Your task to perform on an android device: turn off data saver in the chrome app Image 0: 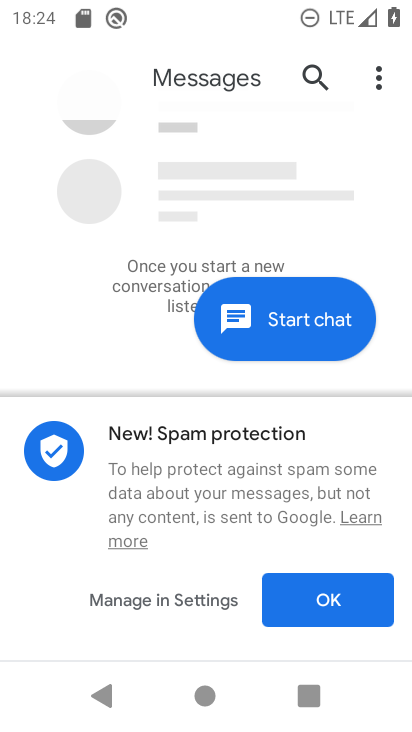
Step 0: press home button
Your task to perform on an android device: turn off data saver in the chrome app Image 1: 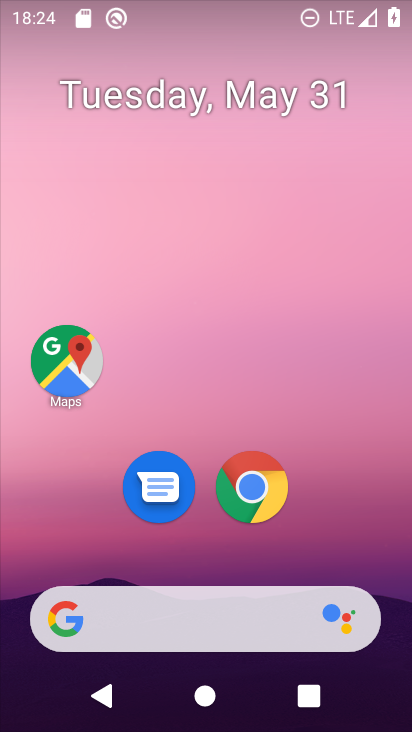
Step 1: click (258, 498)
Your task to perform on an android device: turn off data saver in the chrome app Image 2: 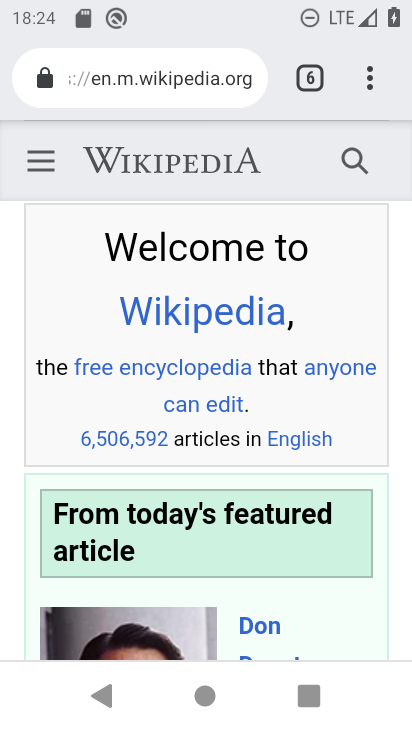
Step 2: click (368, 78)
Your task to perform on an android device: turn off data saver in the chrome app Image 3: 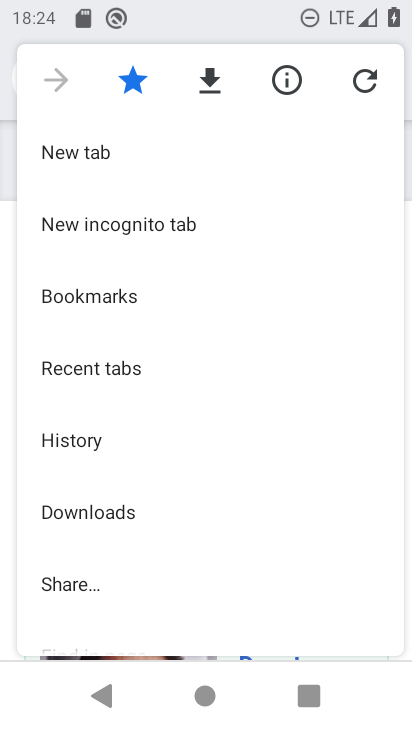
Step 3: drag from (190, 473) to (162, 230)
Your task to perform on an android device: turn off data saver in the chrome app Image 4: 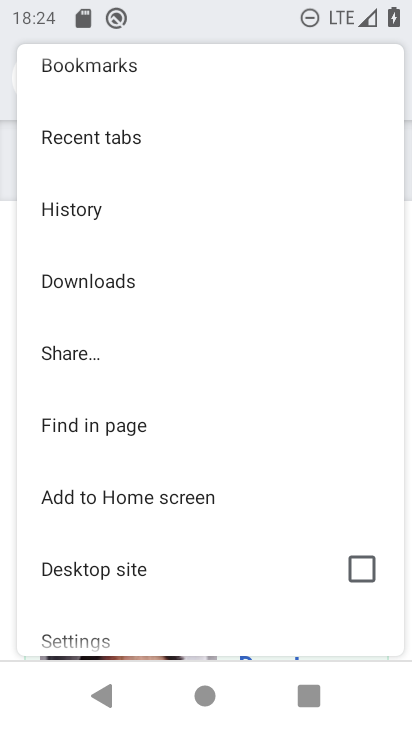
Step 4: drag from (251, 513) to (207, 245)
Your task to perform on an android device: turn off data saver in the chrome app Image 5: 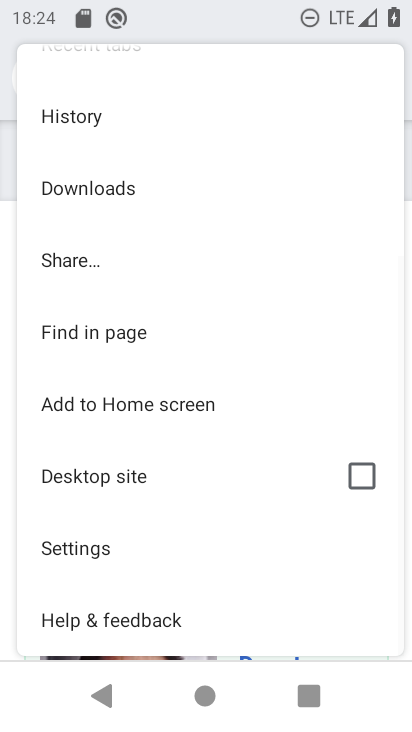
Step 5: click (74, 549)
Your task to perform on an android device: turn off data saver in the chrome app Image 6: 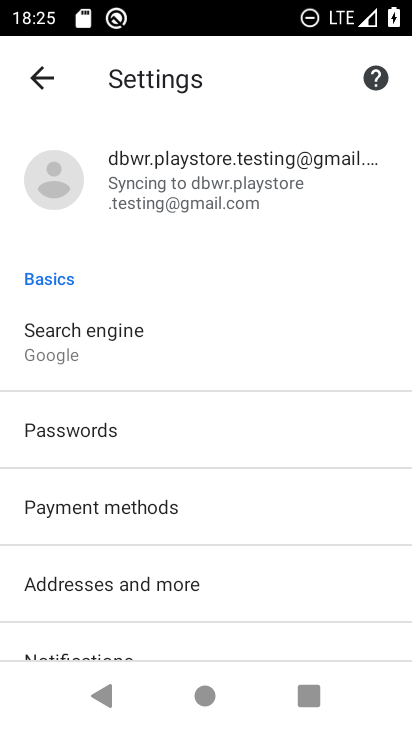
Step 6: drag from (214, 518) to (173, 178)
Your task to perform on an android device: turn off data saver in the chrome app Image 7: 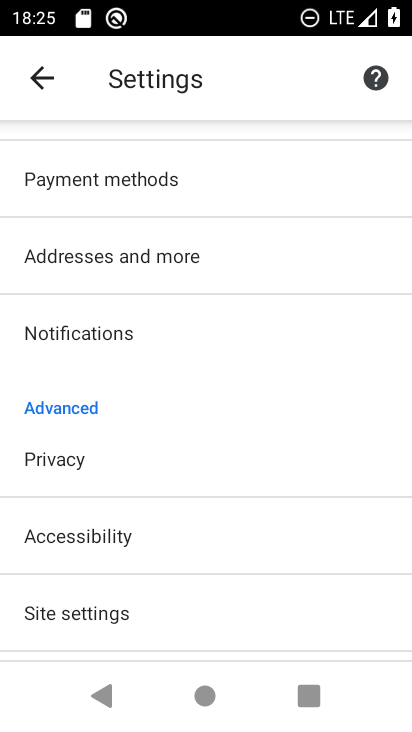
Step 7: click (72, 607)
Your task to perform on an android device: turn off data saver in the chrome app Image 8: 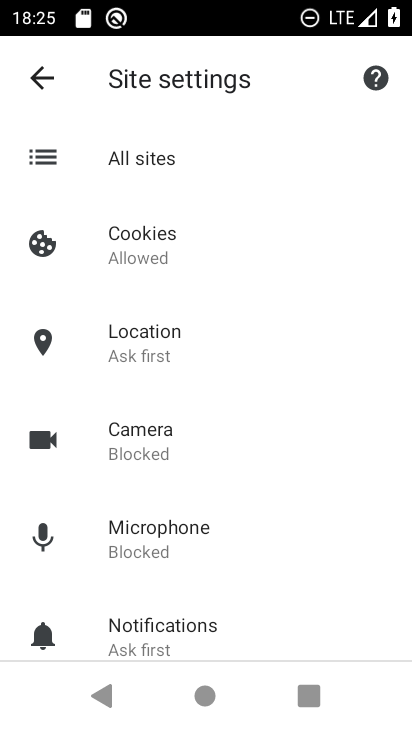
Step 8: drag from (223, 552) to (206, 133)
Your task to perform on an android device: turn off data saver in the chrome app Image 9: 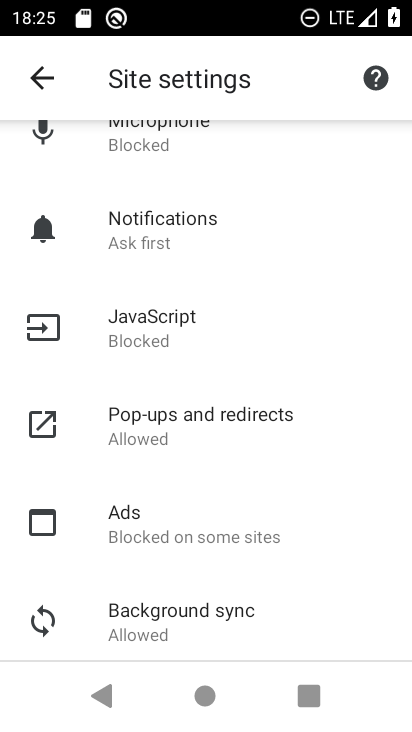
Step 9: click (120, 320)
Your task to perform on an android device: turn off data saver in the chrome app Image 10: 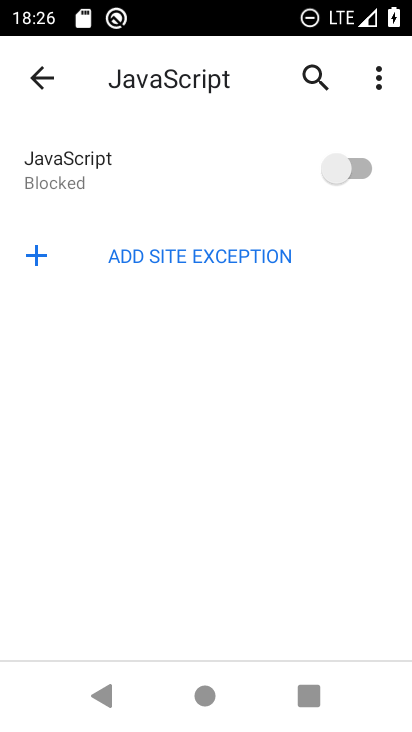
Step 10: task complete